Your task to perform on an android device: Open Youtube and go to the subscriptions tab Image 0: 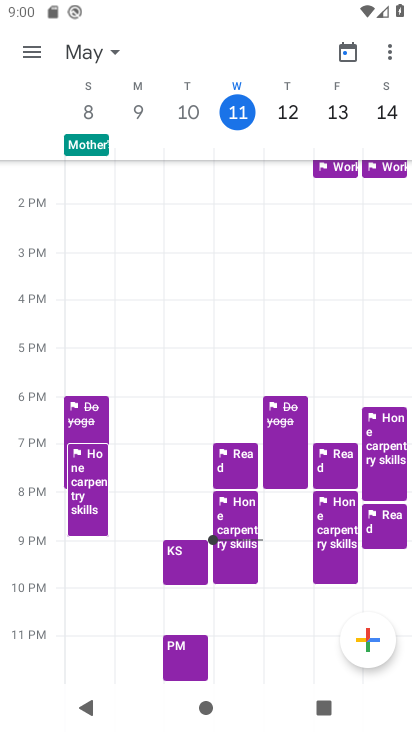
Step 0: press home button
Your task to perform on an android device: Open Youtube and go to the subscriptions tab Image 1: 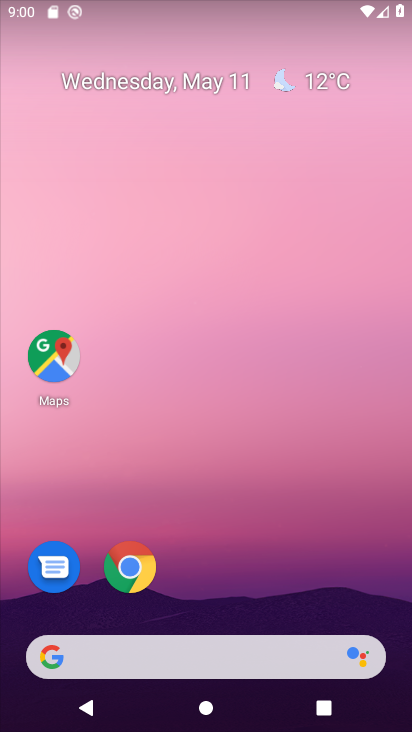
Step 1: drag from (260, 511) to (221, 47)
Your task to perform on an android device: Open Youtube and go to the subscriptions tab Image 2: 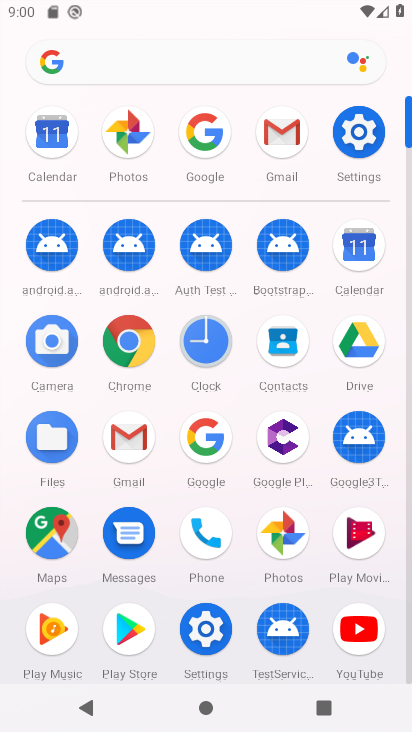
Step 2: click (365, 632)
Your task to perform on an android device: Open Youtube and go to the subscriptions tab Image 3: 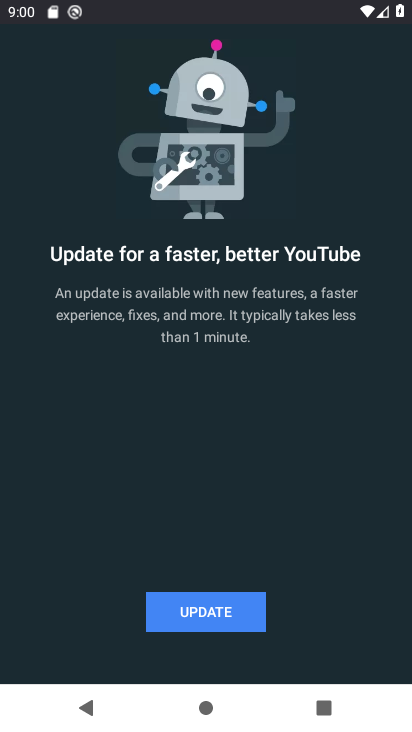
Step 3: click (237, 610)
Your task to perform on an android device: Open Youtube and go to the subscriptions tab Image 4: 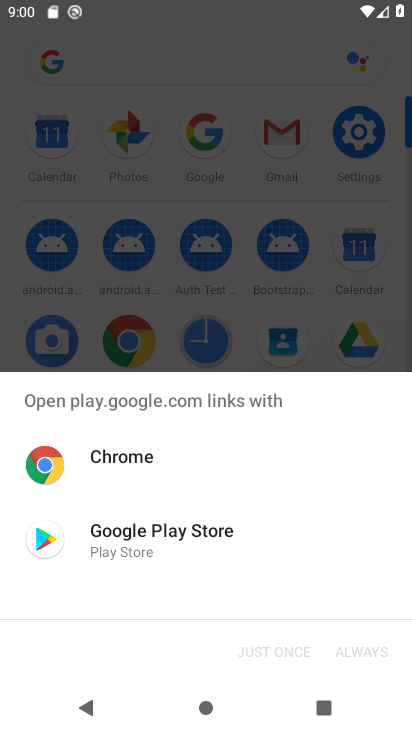
Step 4: click (195, 544)
Your task to perform on an android device: Open Youtube and go to the subscriptions tab Image 5: 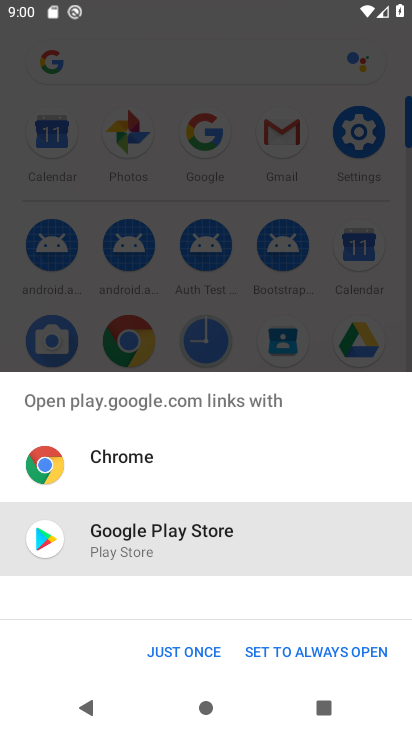
Step 5: click (185, 648)
Your task to perform on an android device: Open Youtube and go to the subscriptions tab Image 6: 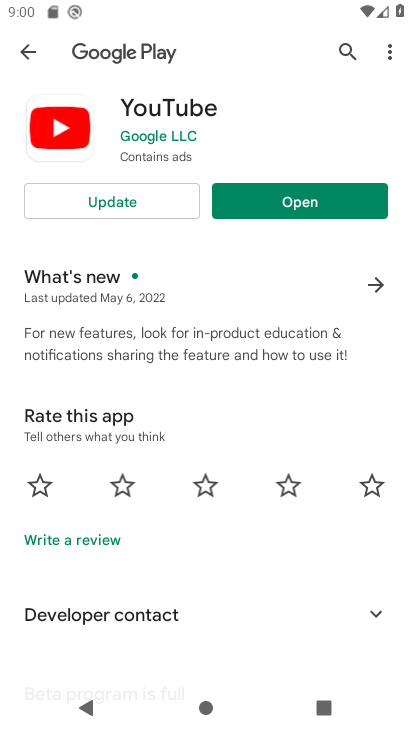
Step 6: click (146, 199)
Your task to perform on an android device: Open Youtube and go to the subscriptions tab Image 7: 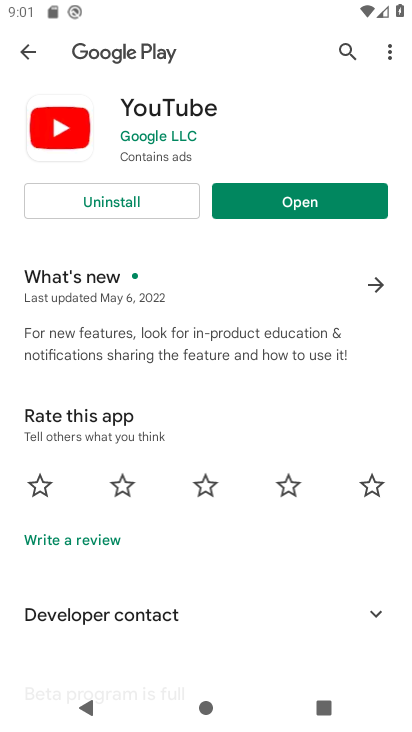
Step 7: click (289, 198)
Your task to perform on an android device: Open Youtube and go to the subscriptions tab Image 8: 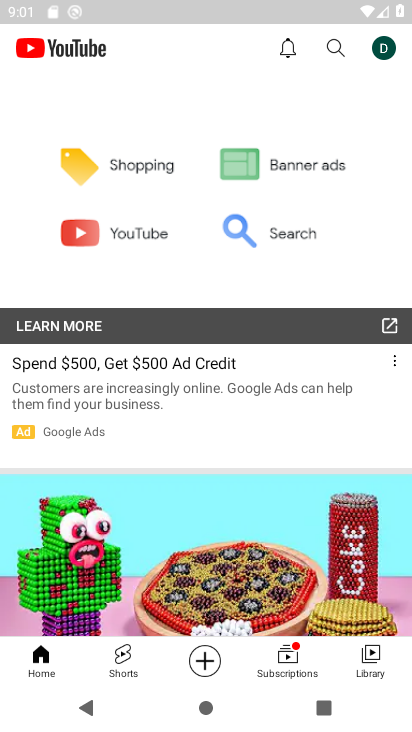
Step 8: click (278, 658)
Your task to perform on an android device: Open Youtube and go to the subscriptions tab Image 9: 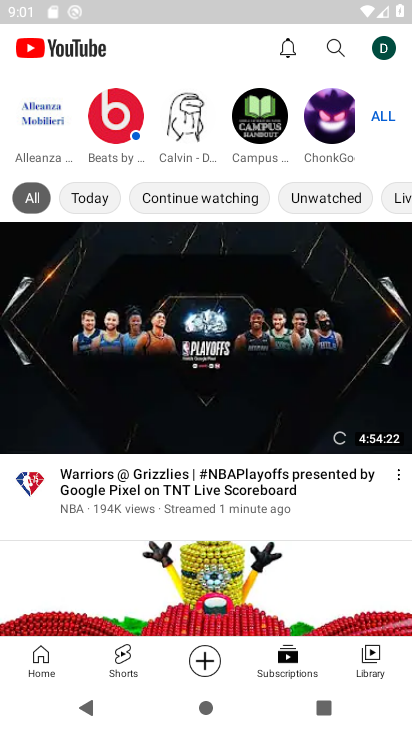
Step 9: task complete